Your task to perform on an android device: Show me popular games on the Play Store Image 0: 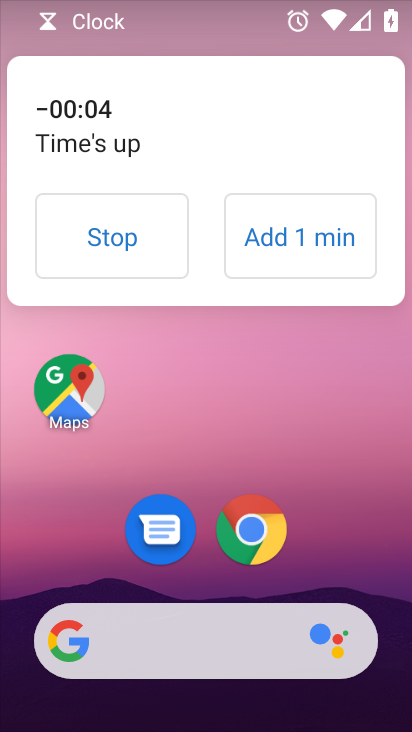
Step 0: click (104, 235)
Your task to perform on an android device: Show me popular games on the Play Store Image 1: 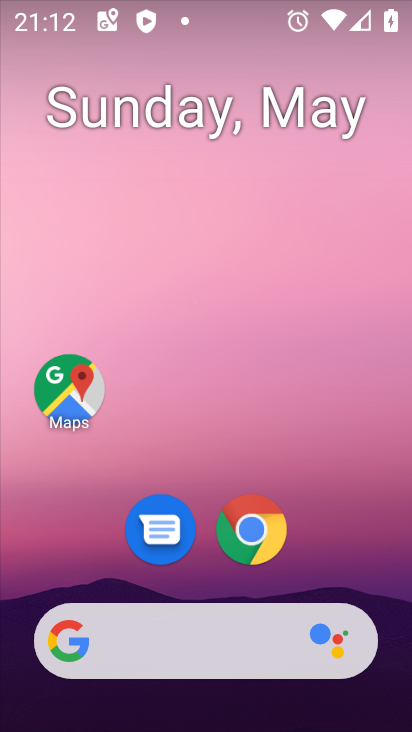
Step 1: drag from (364, 592) to (355, 12)
Your task to perform on an android device: Show me popular games on the Play Store Image 2: 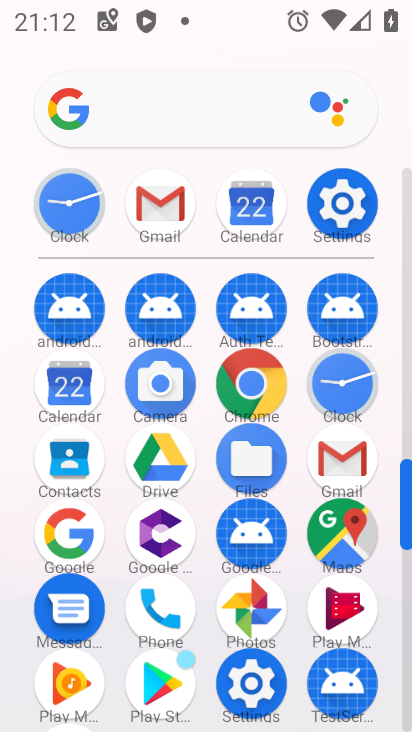
Step 2: click (153, 674)
Your task to perform on an android device: Show me popular games on the Play Store Image 3: 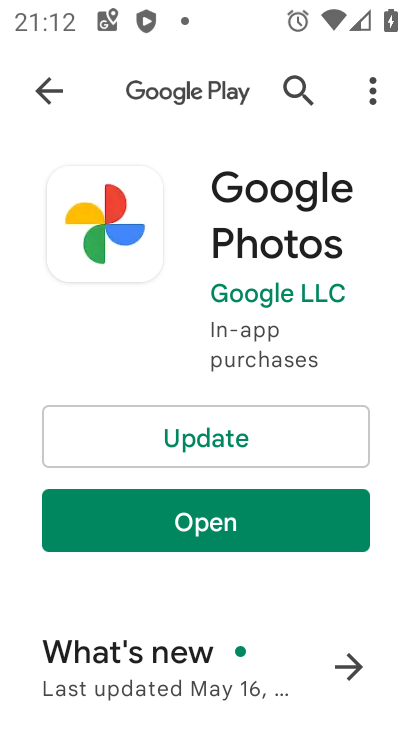
Step 3: click (49, 97)
Your task to perform on an android device: Show me popular games on the Play Store Image 4: 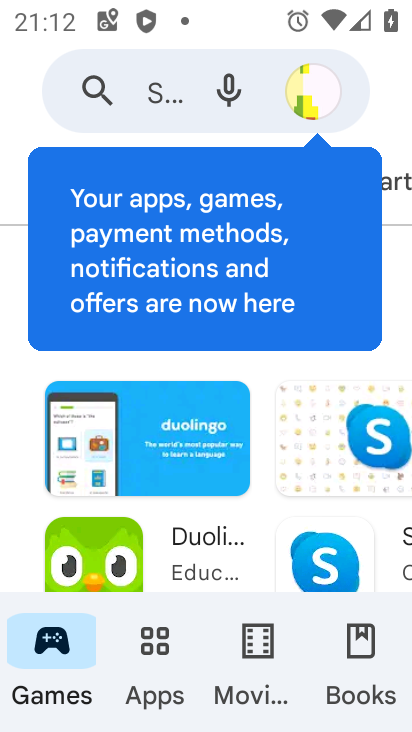
Step 4: drag from (225, 560) to (207, 131)
Your task to perform on an android device: Show me popular games on the Play Store Image 5: 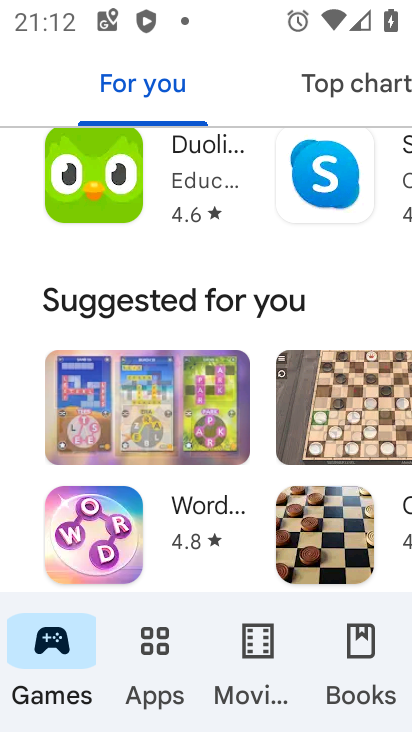
Step 5: drag from (192, 517) to (161, 98)
Your task to perform on an android device: Show me popular games on the Play Store Image 6: 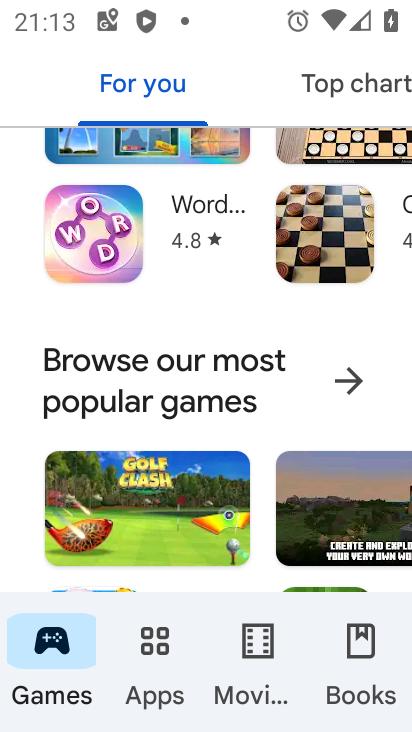
Step 6: click (271, 371)
Your task to perform on an android device: Show me popular games on the Play Store Image 7: 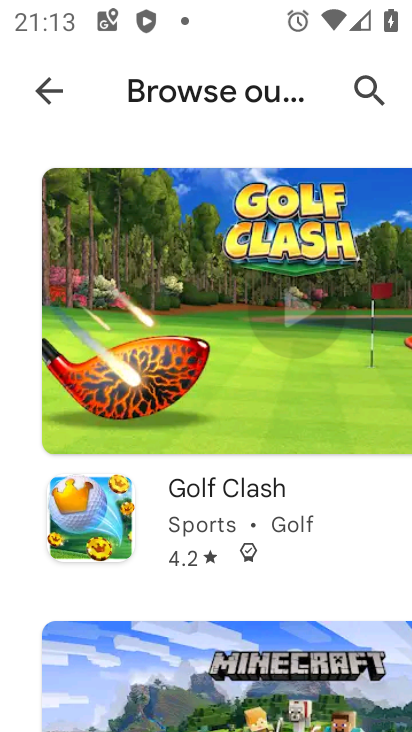
Step 7: task complete